Your task to perform on an android device: Open Google Maps and go to "Timeline" Image 0: 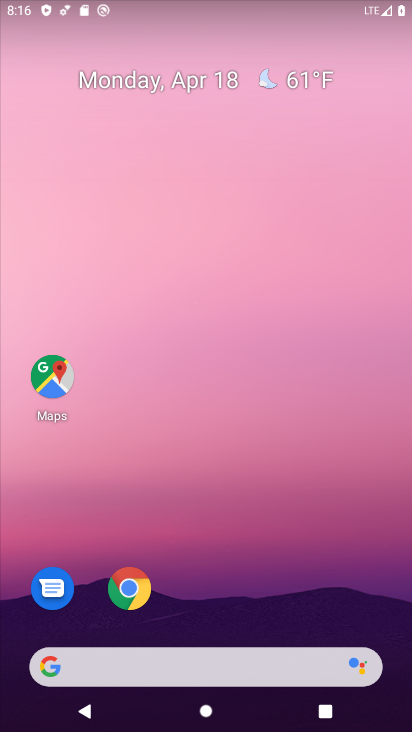
Step 0: click (45, 373)
Your task to perform on an android device: Open Google Maps and go to "Timeline" Image 1: 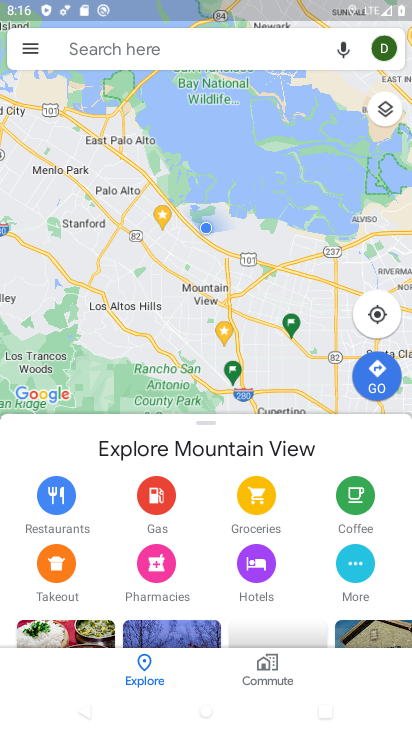
Step 1: click (23, 39)
Your task to perform on an android device: Open Google Maps and go to "Timeline" Image 2: 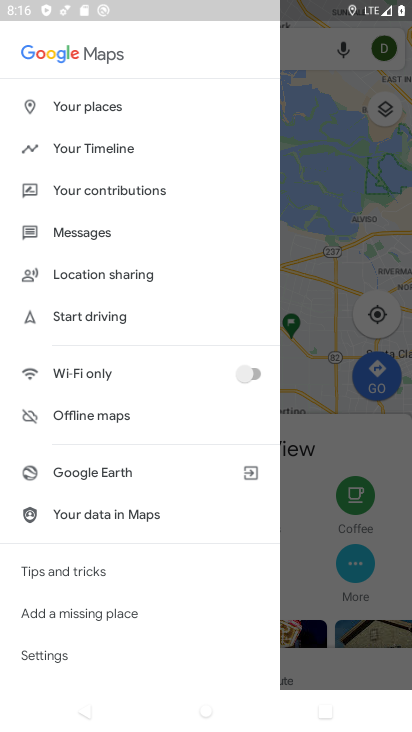
Step 2: click (95, 143)
Your task to perform on an android device: Open Google Maps and go to "Timeline" Image 3: 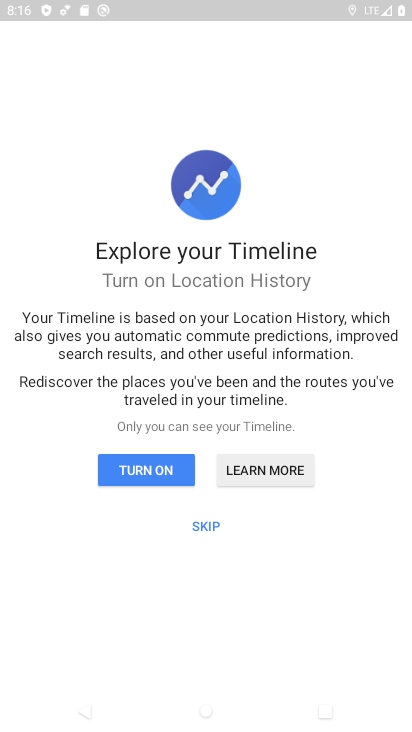
Step 3: click (205, 525)
Your task to perform on an android device: Open Google Maps and go to "Timeline" Image 4: 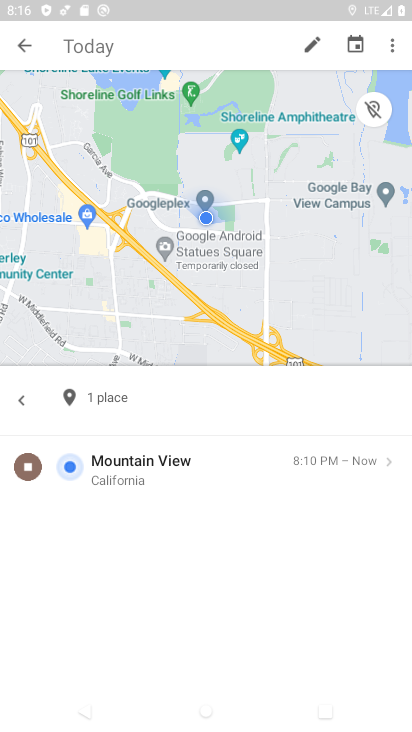
Step 4: task complete